Your task to perform on an android device: Go to Google maps Image 0: 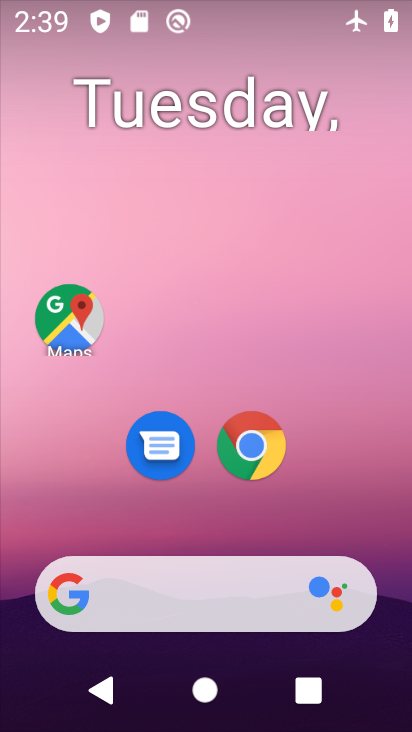
Step 0: click (61, 324)
Your task to perform on an android device: Go to Google maps Image 1: 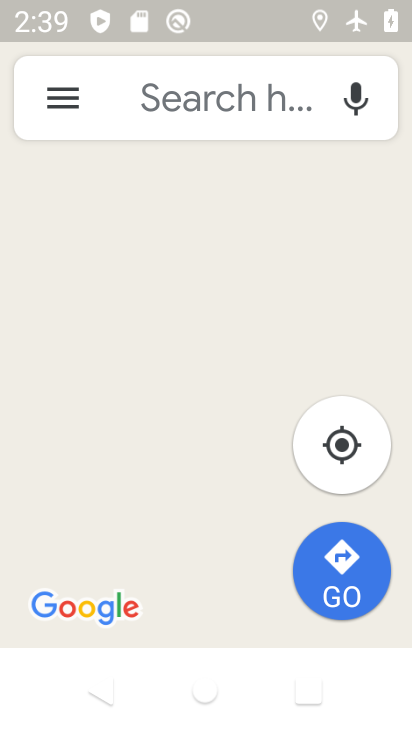
Step 1: task complete